Your task to perform on an android device: check battery use Image 0: 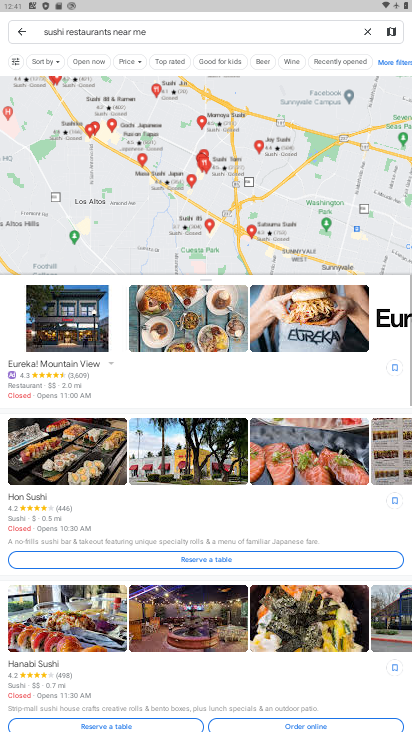
Step 0: drag from (269, 643) to (348, 255)
Your task to perform on an android device: check battery use Image 1: 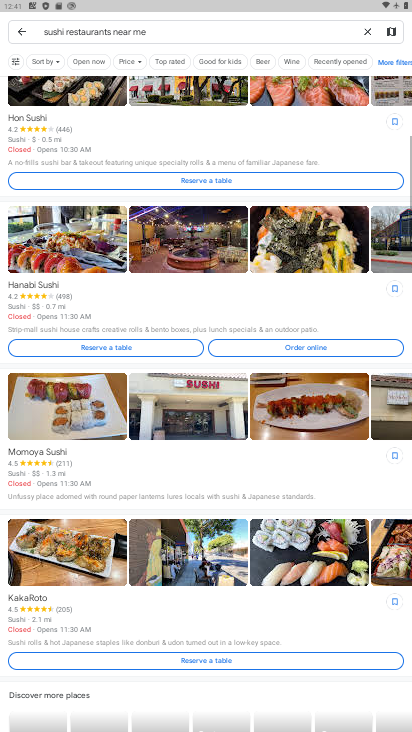
Step 1: press home button
Your task to perform on an android device: check battery use Image 2: 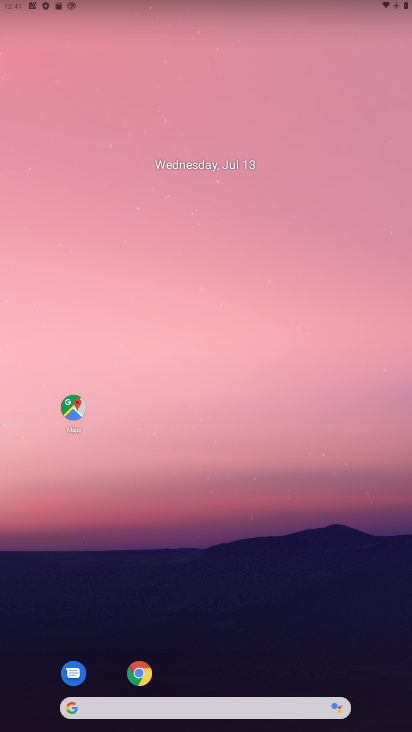
Step 2: drag from (253, 662) to (256, 148)
Your task to perform on an android device: check battery use Image 3: 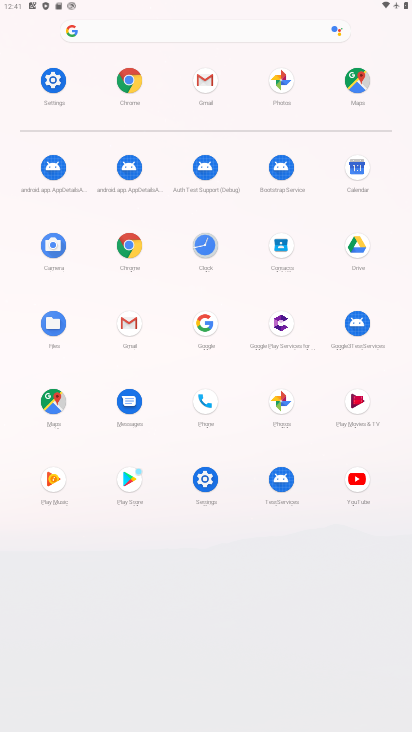
Step 3: click (67, 82)
Your task to perform on an android device: check battery use Image 4: 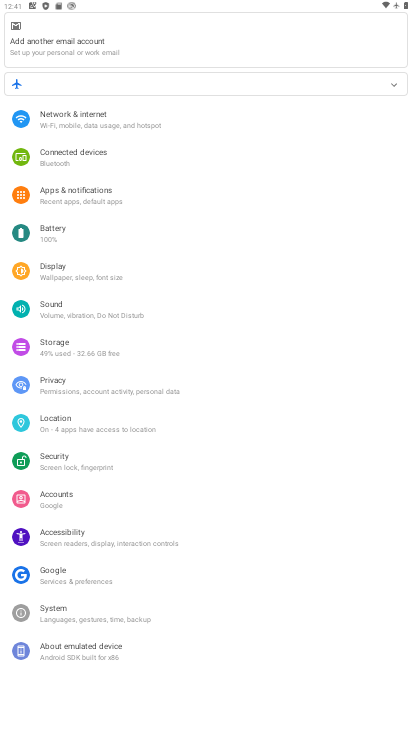
Step 4: click (96, 238)
Your task to perform on an android device: check battery use Image 5: 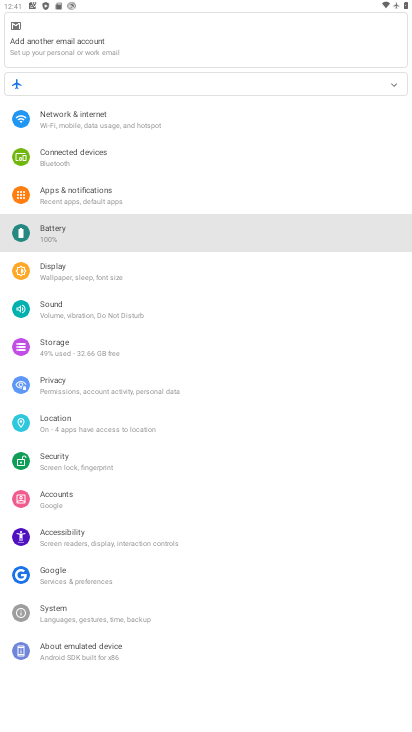
Step 5: task complete